Your task to perform on an android device: open app "Nova Launcher" (install if not already installed) Image 0: 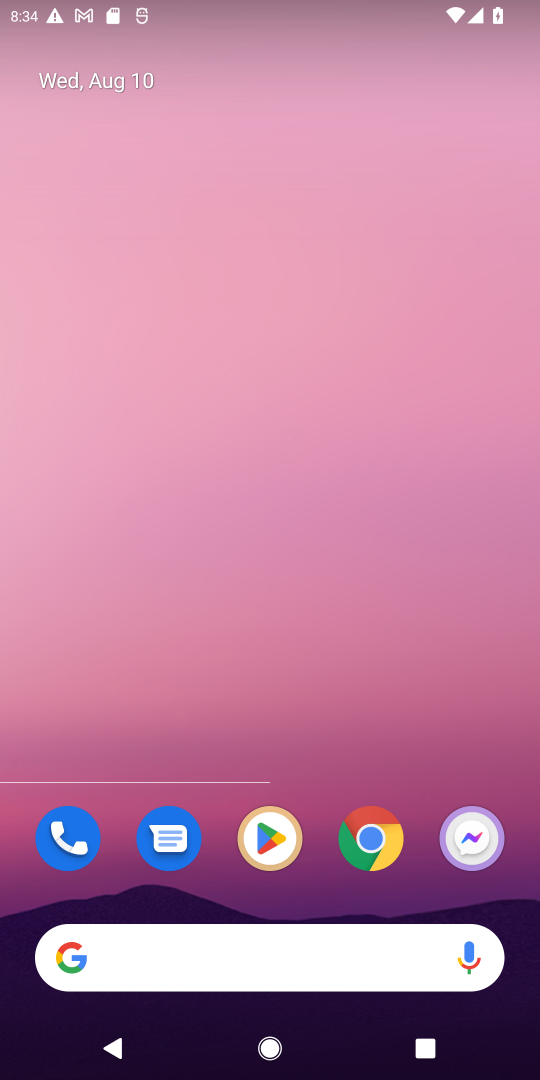
Step 0: press home button
Your task to perform on an android device: open app "Nova Launcher" (install if not already installed) Image 1: 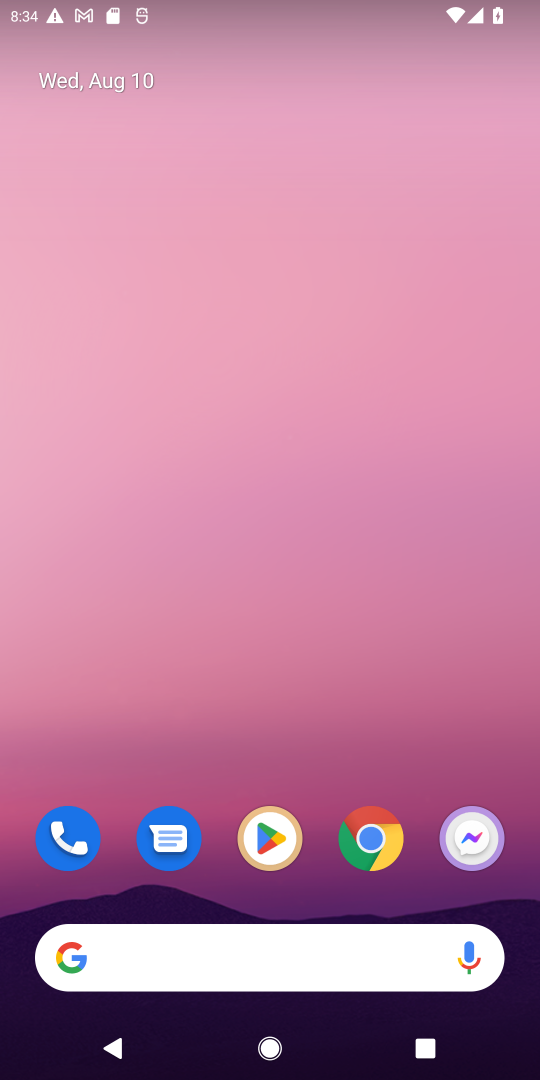
Step 1: drag from (223, 900) to (237, 151)
Your task to perform on an android device: open app "Nova Launcher" (install if not already installed) Image 2: 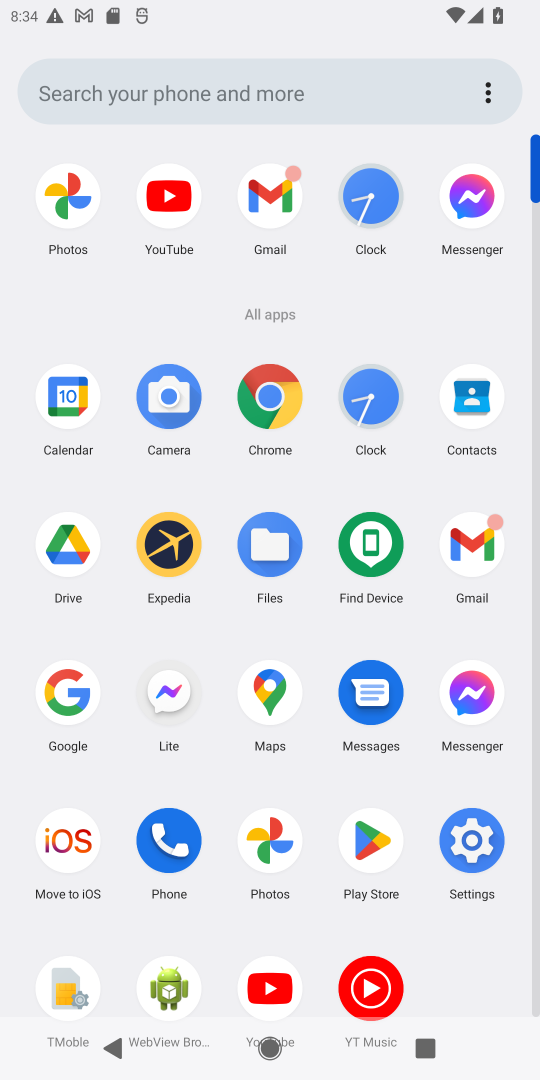
Step 2: click (370, 832)
Your task to perform on an android device: open app "Nova Launcher" (install if not already installed) Image 3: 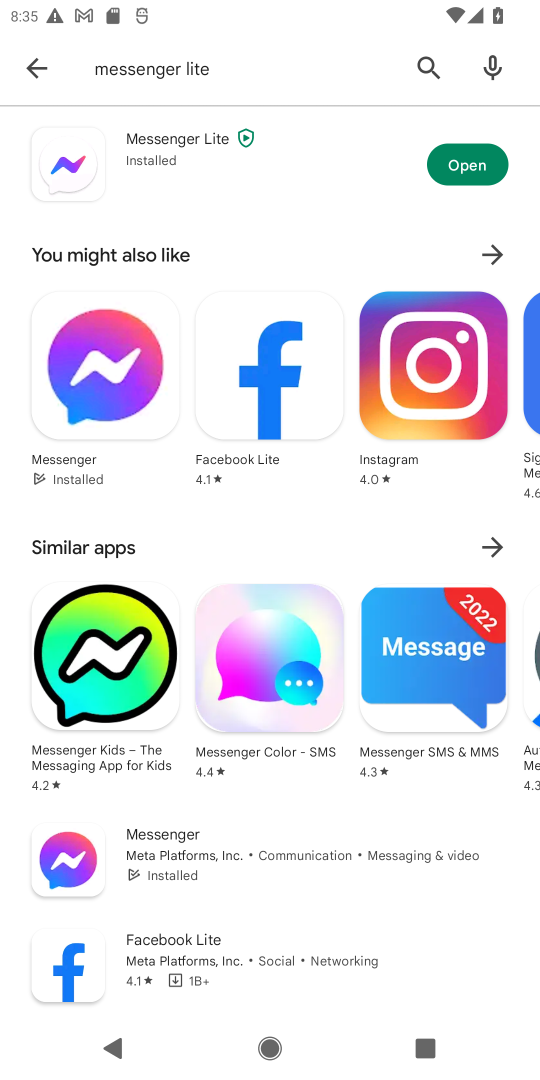
Step 3: click (427, 65)
Your task to perform on an android device: open app "Nova Launcher" (install if not already installed) Image 4: 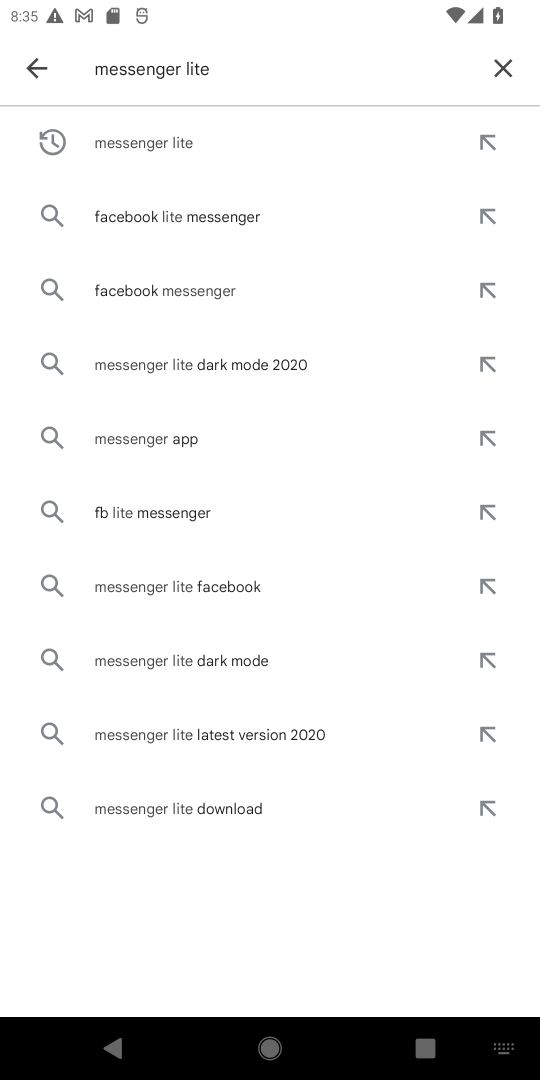
Step 4: click (496, 74)
Your task to perform on an android device: open app "Nova Launcher" (install if not already installed) Image 5: 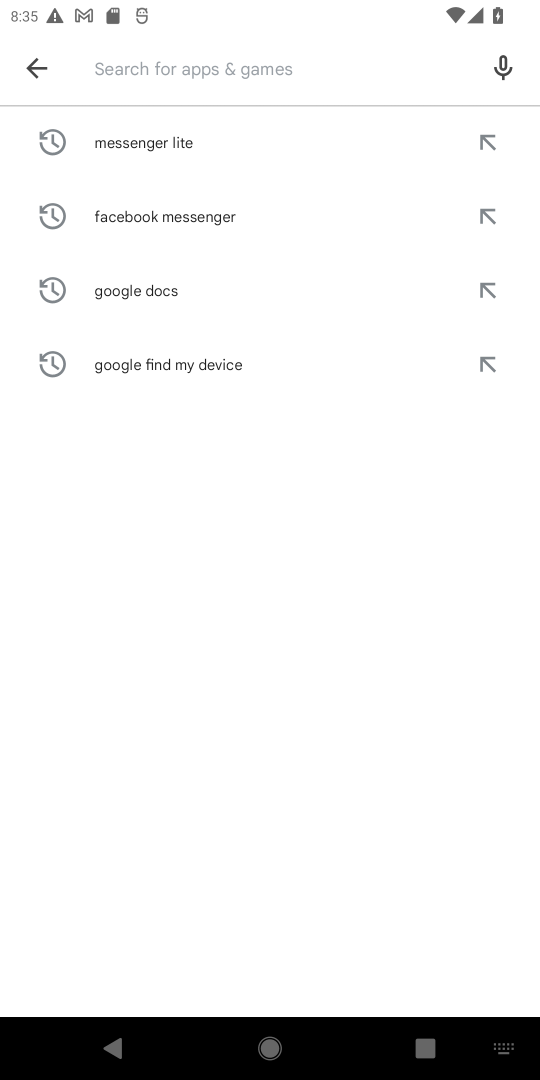
Step 5: type "Nova Launcher"
Your task to perform on an android device: open app "Nova Launcher" (install if not already installed) Image 6: 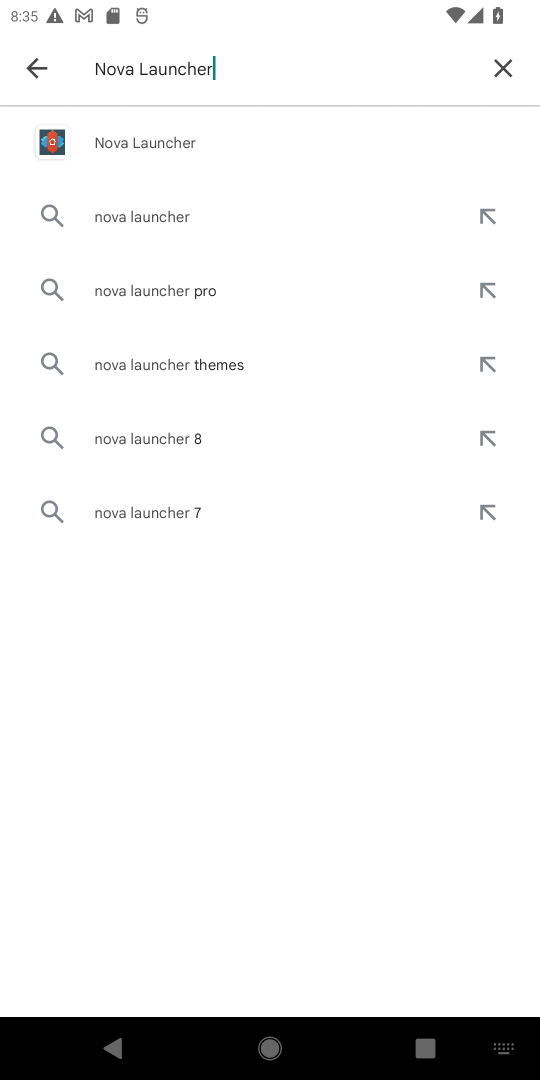
Step 6: click (201, 133)
Your task to perform on an android device: open app "Nova Launcher" (install if not already installed) Image 7: 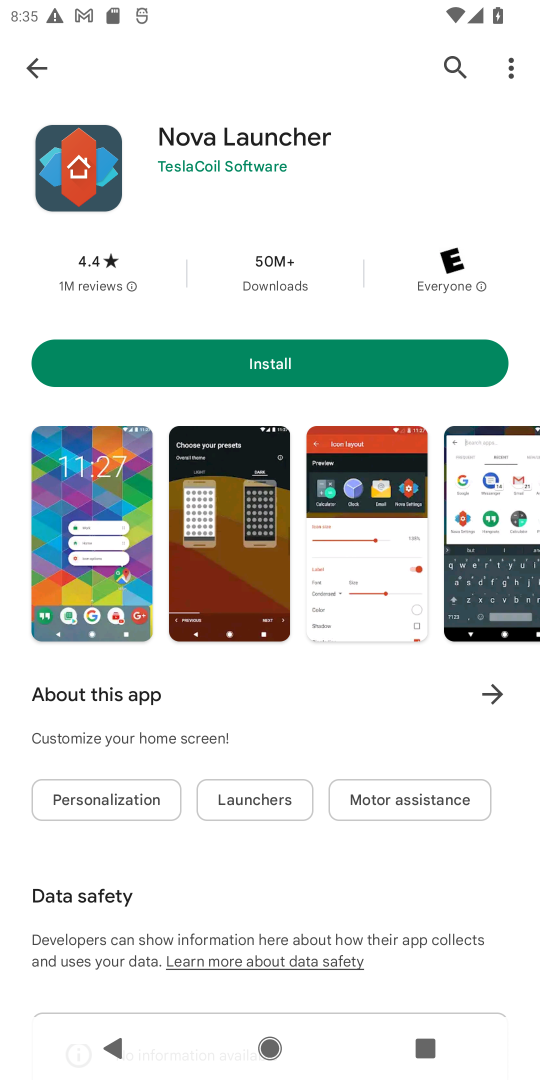
Step 7: click (288, 362)
Your task to perform on an android device: open app "Nova Launcher" (install if not already installed) Image 8: 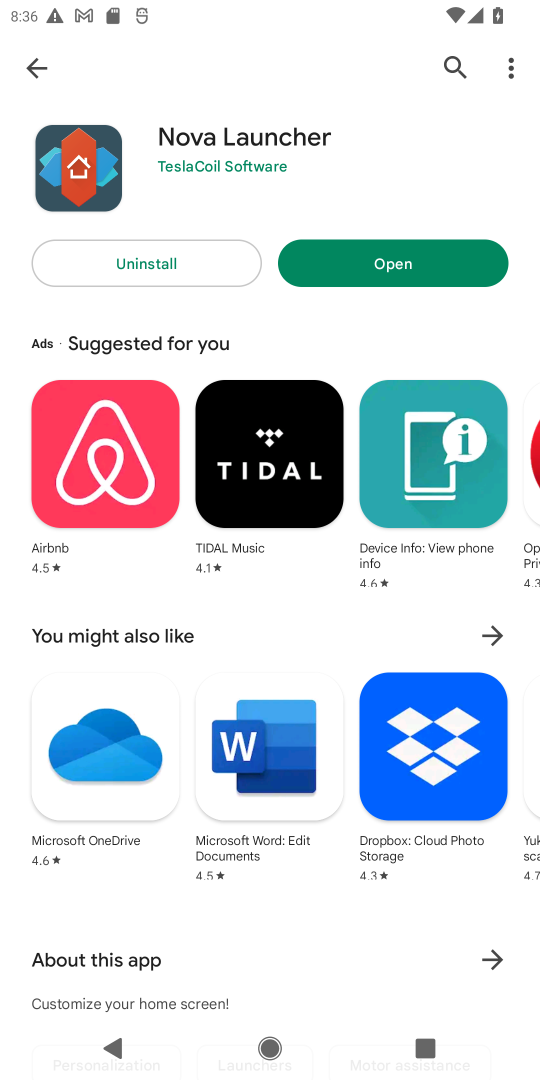
Step 8: click (409, 257)
Your task to perform on an android device: open app "Nova Launcher" (install if not already installed) Image 9: 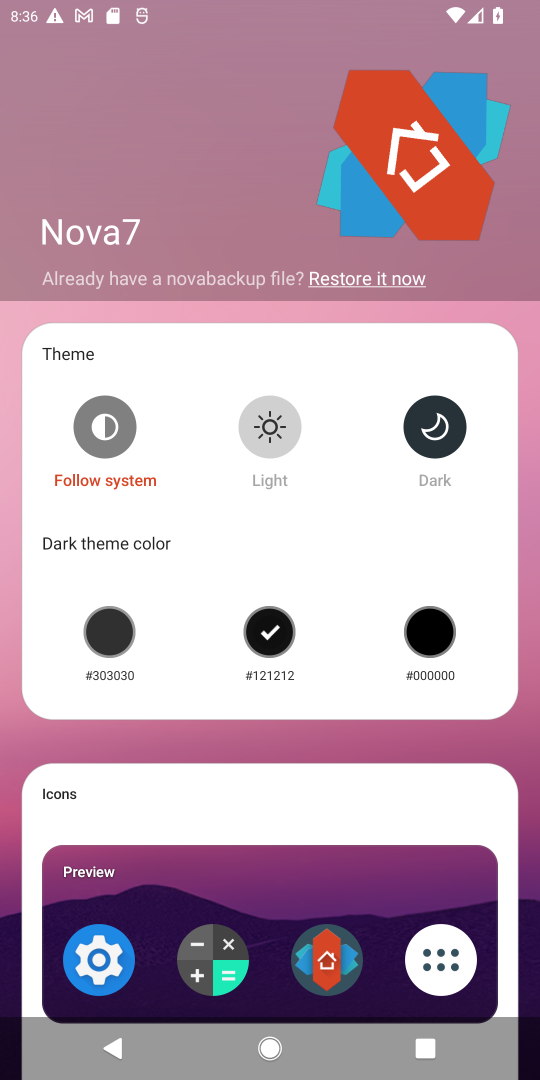
Step 9: task complete